Your task to perform on an android device: change text size in settings app Image 0: 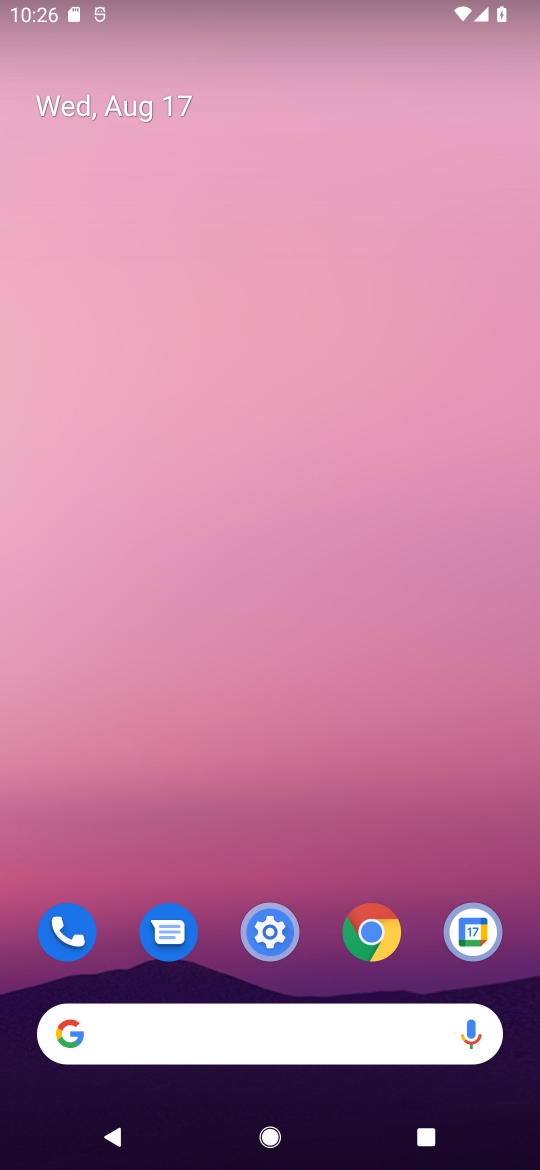
Step 0: drag from (322, 854) to (250, 5)
Your task to perform on an android device: change text size in settings app Image 1: 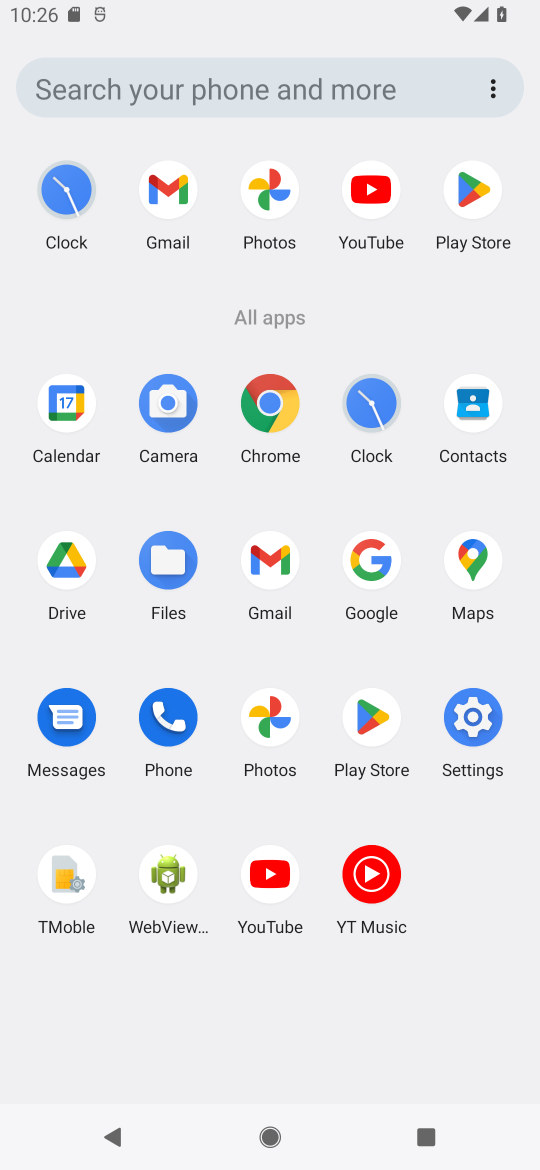
Step 1: click (468, 715)
Your task to perform on an android device: change text size in settings app Image 2: 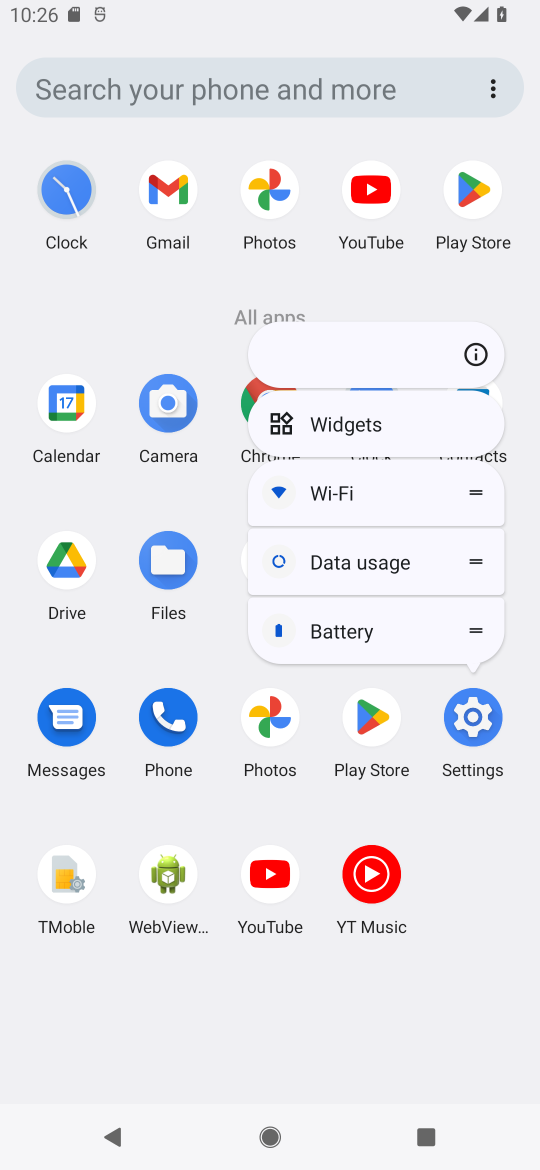
Step 2: click (467, 720)
Your task to perform on an android device: change text size in settings app Image 3: 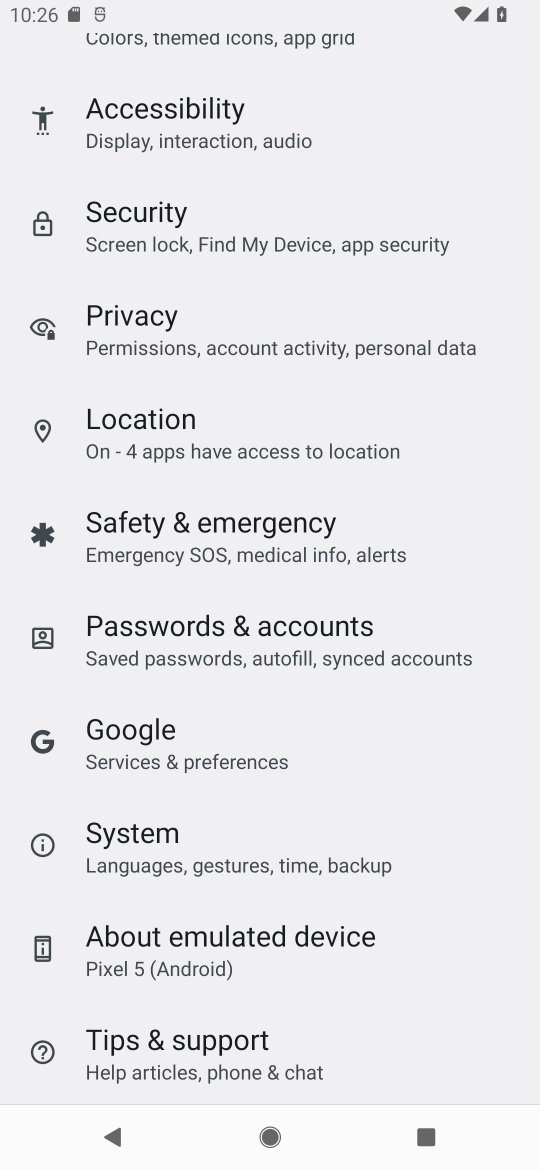
Step 3: drag from (224, 1018) to (231, 373)
Your task to perform on an android device: change text size in settings app Image 4: 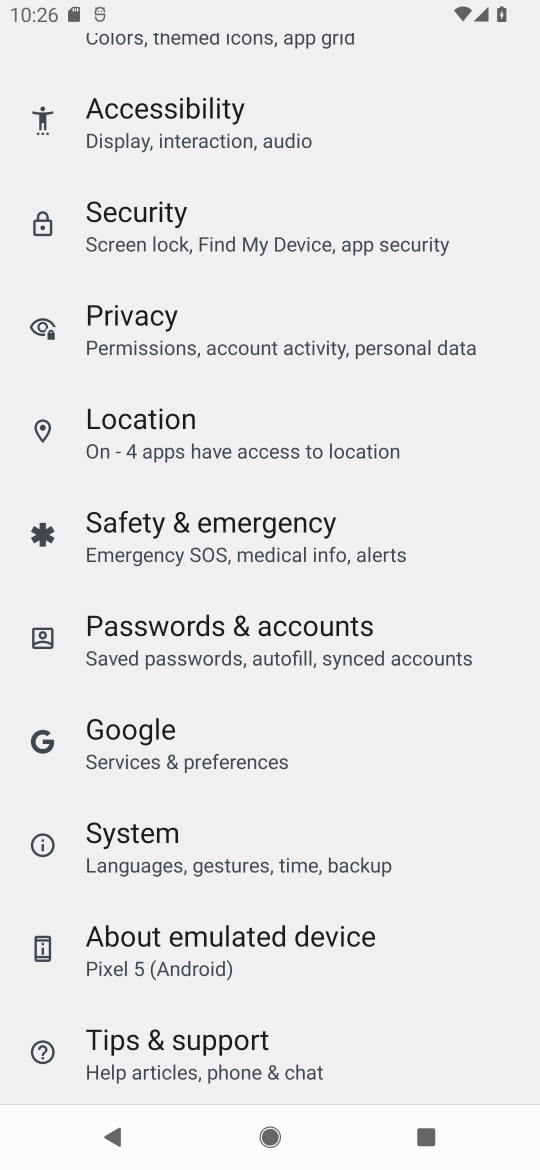
Step 4: drag from (230, 197) to (263, 840)
Your task to perform on an android device: change text size in settings app Image 5: 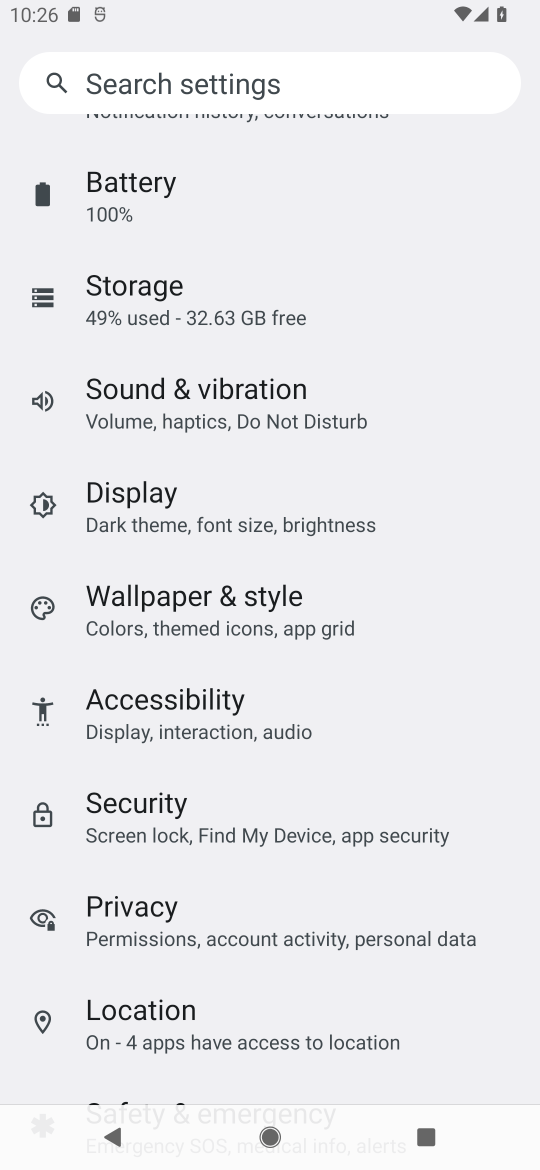
Step 5: click (206, 518)
Your task to perform on an android device: change text size in settings app Image 6: 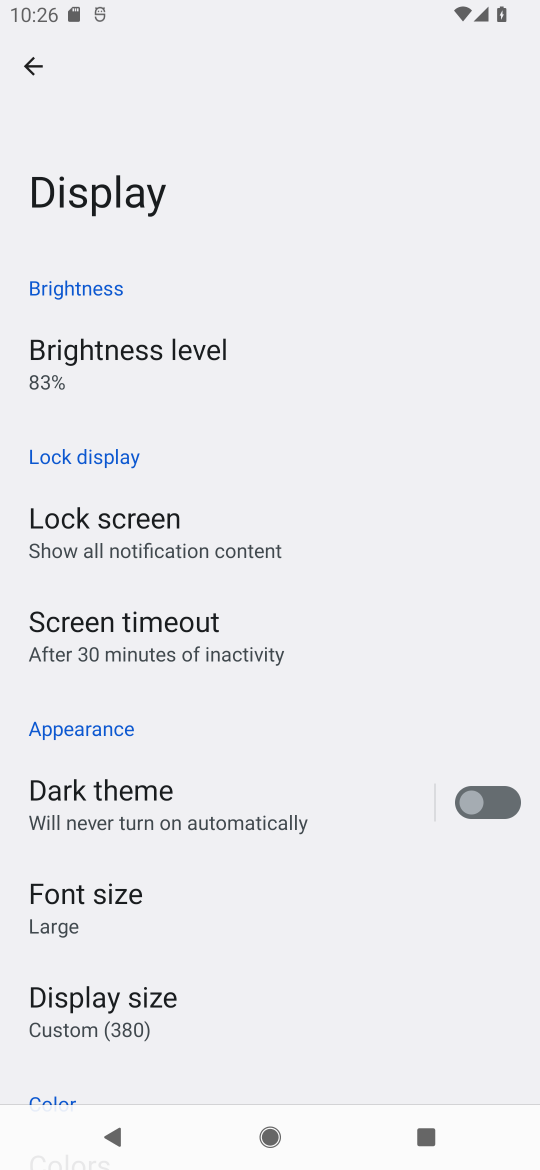
Step 6: click (70, 894)
Your task to perform on an android device: change text size in settings app Image 7: 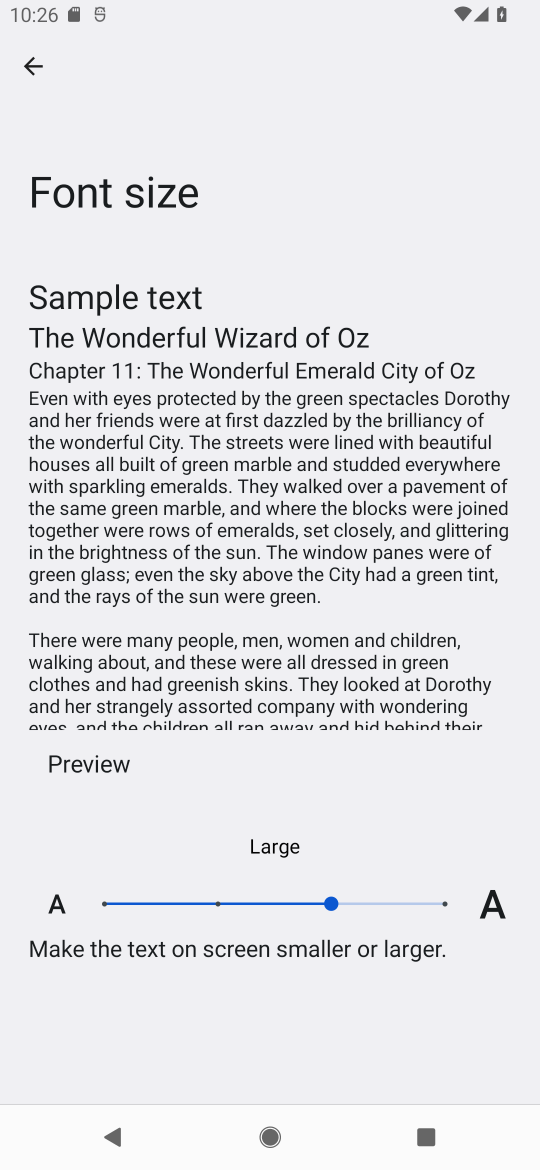
Step 7: click (441, 903)
Your task to perform on an android device: change text size in settings app Image 8: 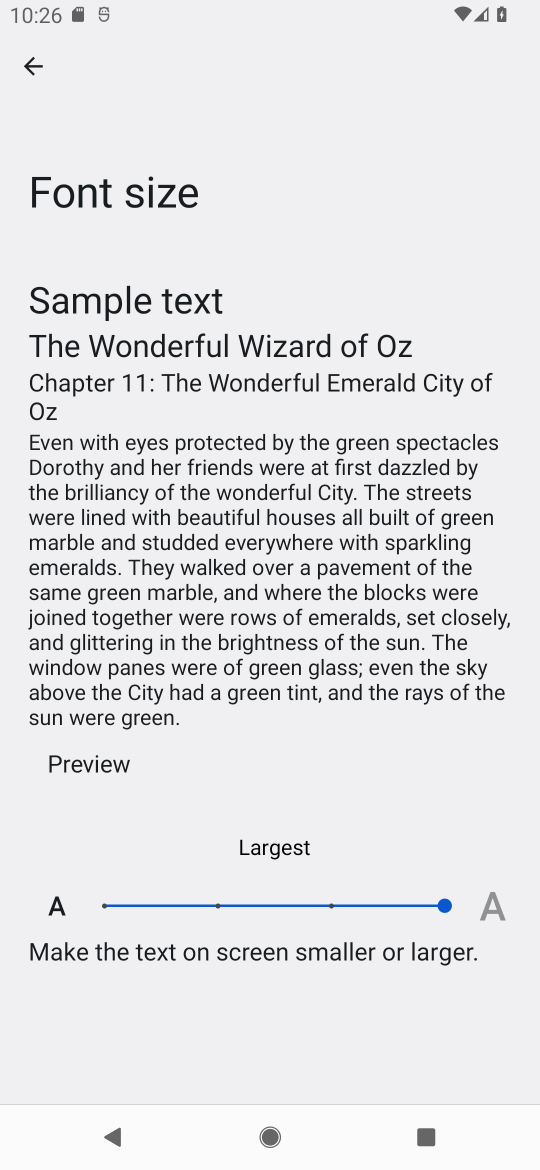
Step 8: task complete